Your task to perform on an android device: Go to Maps Image 0: 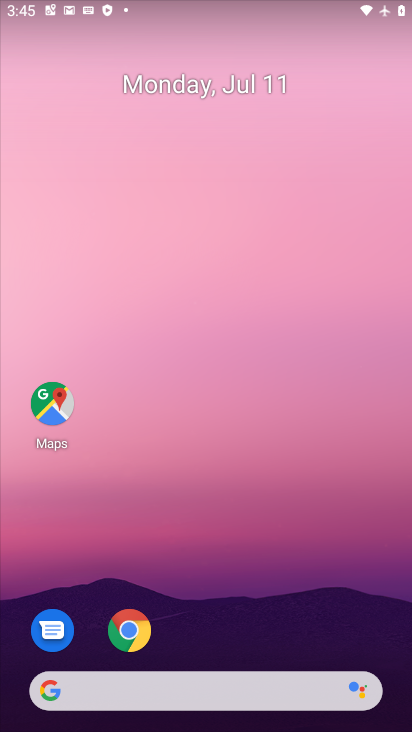
Step 0: click (240, 255)
Your task to perform on an android device: Go to Maps Image 1: 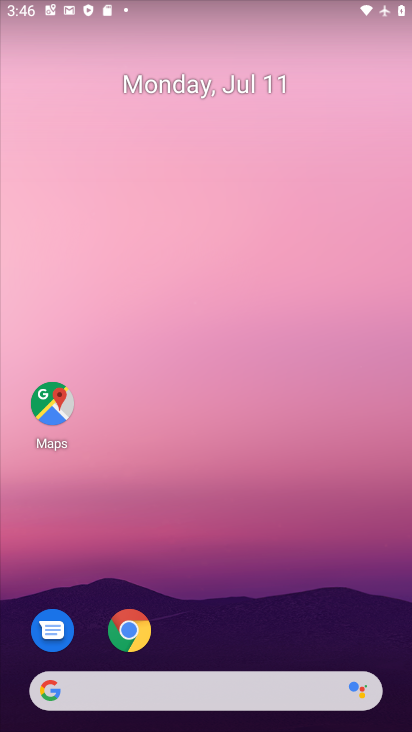
Step 1: drag from (232, 593) to (245, 63)
Your task to perform on an android device: Go to Maps Image 2: 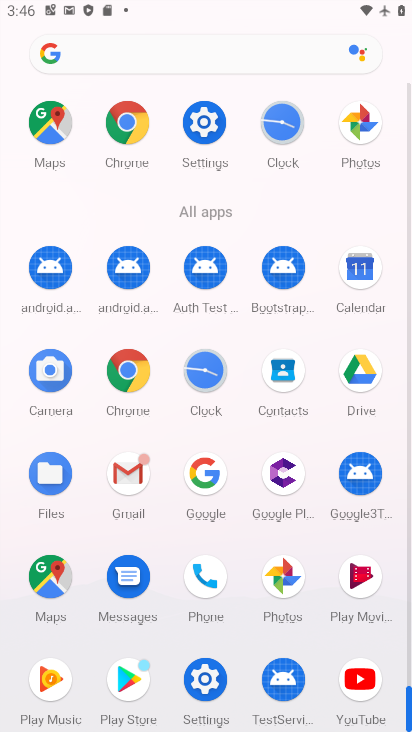
Step 2: drag from (193, 667) to (112, 48)
Your task to perform on an android device: Go to Maps Image 3: 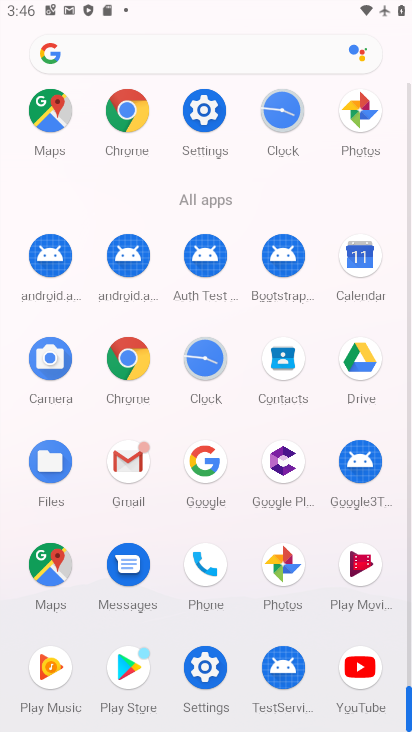
Step 3: click (43, 554)
Your task to perform on an android device: Go to Maps Image 4: 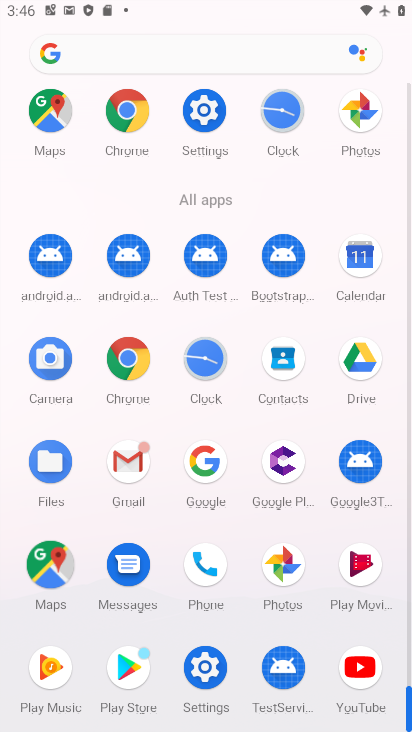
Step 4: click (43, 554)
Your task to perform on an android device: Go to Maps Image 5: 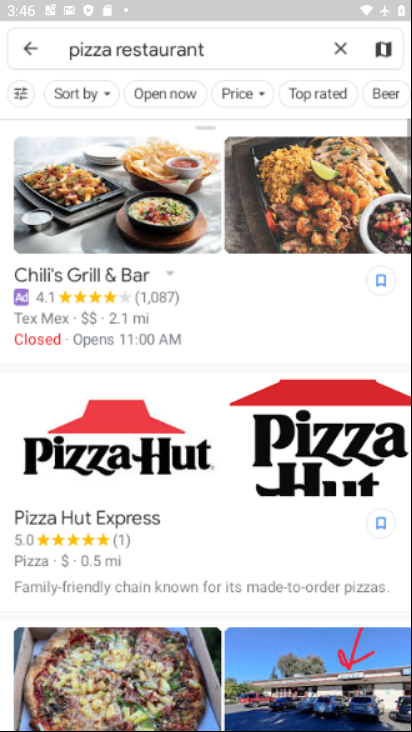
Step 5: click (46, 557)
Your task to perform on an android device: Go to Maps Image 6: 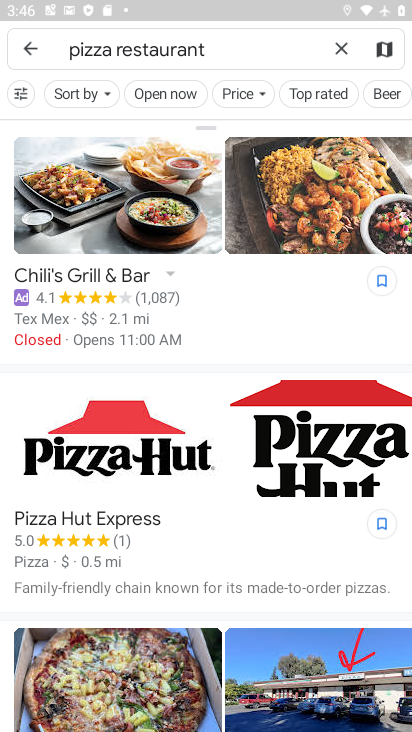
Step 6: task complete